Your task to perform on an android device: Go to Android settings Image 0: 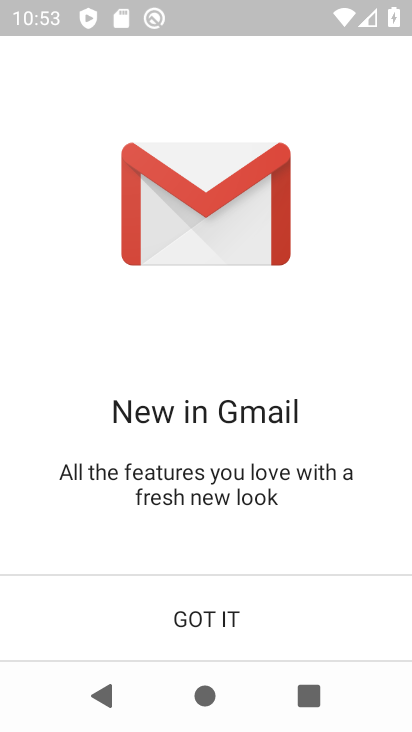
Step 0: press home button
Your task to perform on an android device: Go to Android settings Image 1: 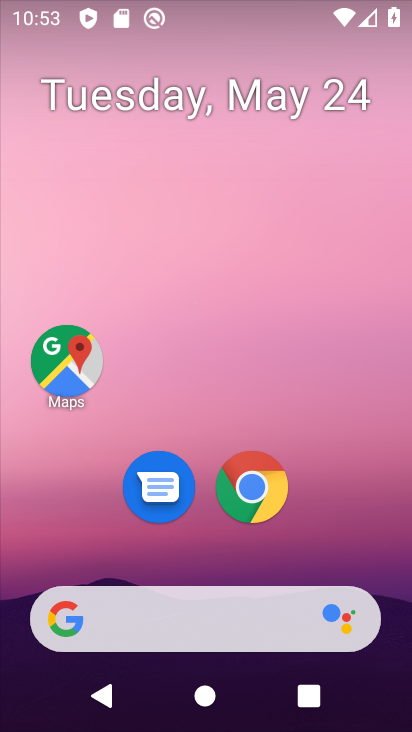
Step 1: drag from (172, 565) to (284, 9)
Your task to perform on an android device: Go to Android settings Image 2: 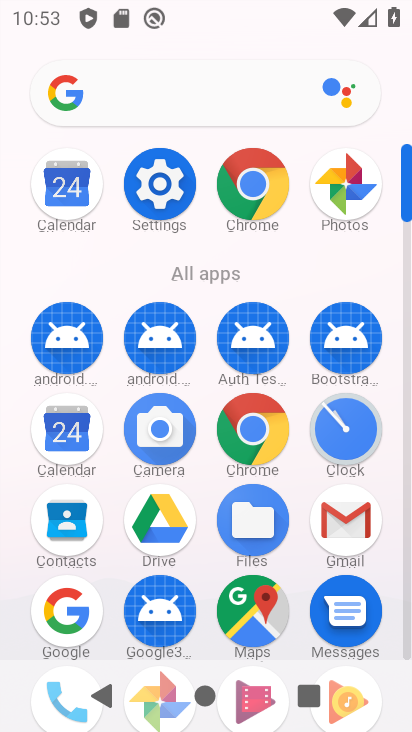
Step 2: click (155, 172)
Your task to perform on an android device: Go to Android settings Image 3: 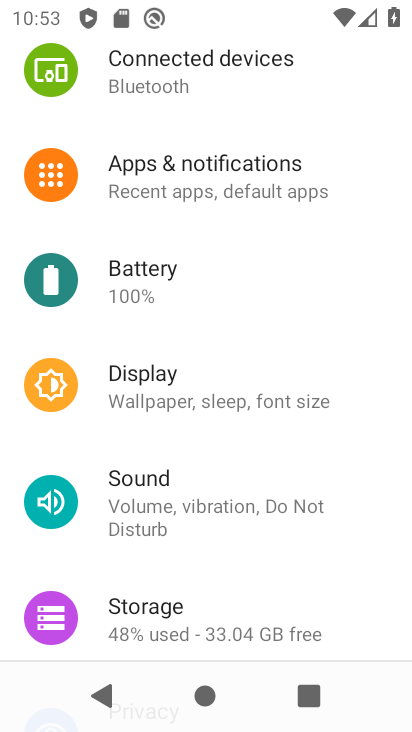
Step 3: drag from (145, 598) to (277, 68)
Your task to perform on an android device: Go to Android settings Image 4: 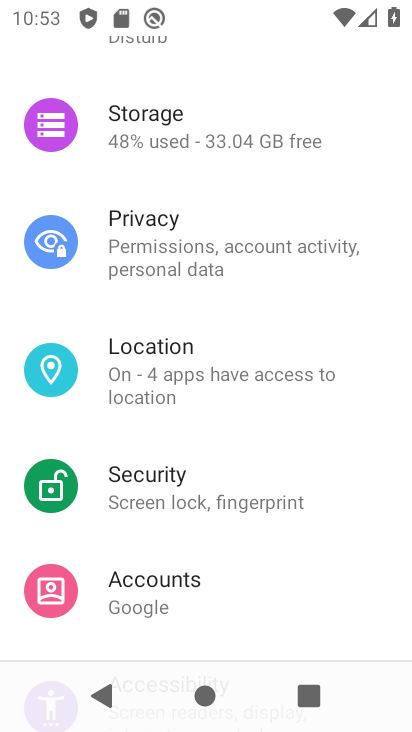
Step 4: drag from (156, 593) to (286, 50)
Your task to perform on an android device: Go to Android settings Image 5: 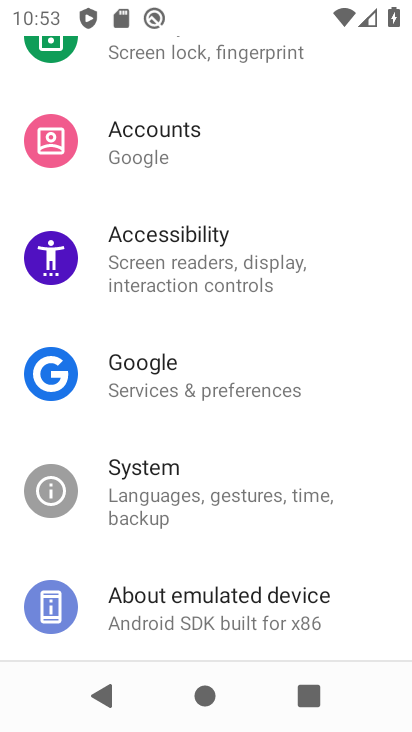
Step 5: drag from (160, 609) to (280, 109)
Your task to perform on an android device: Go to Android settings Image 6: 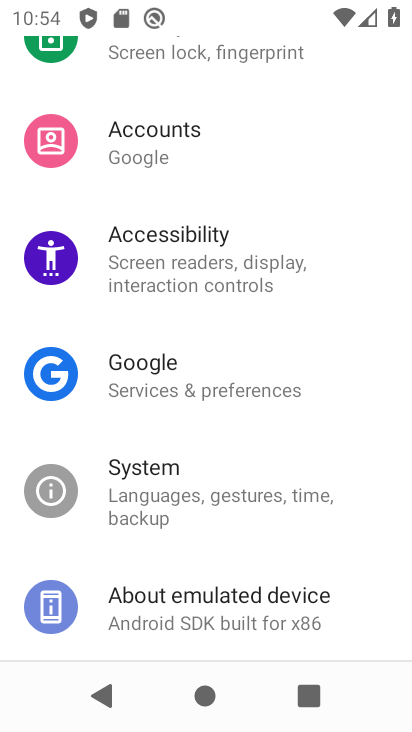
Step 6: click (212, 612)
Your task to perform on an android device: Go to Android settings Image 7: 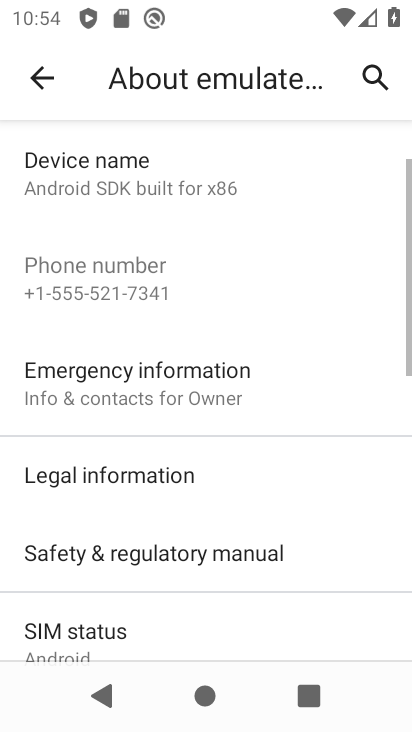
Step 7: task complete